Your task to perform on an android device: Open Android settings Image 0: 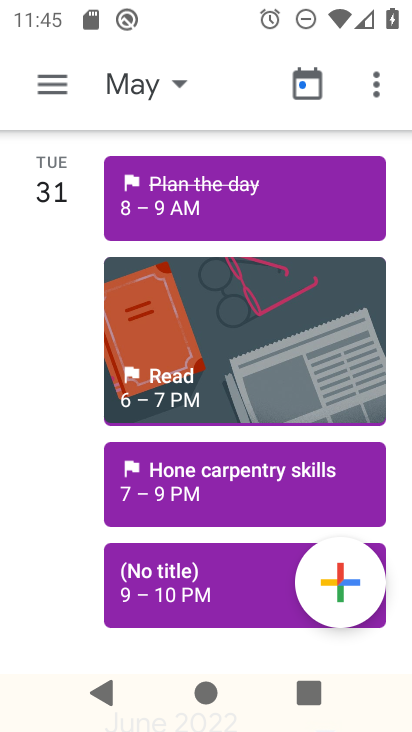
Step 0: press home button
Your task to perform on an android device: Open Android settings Image 1: 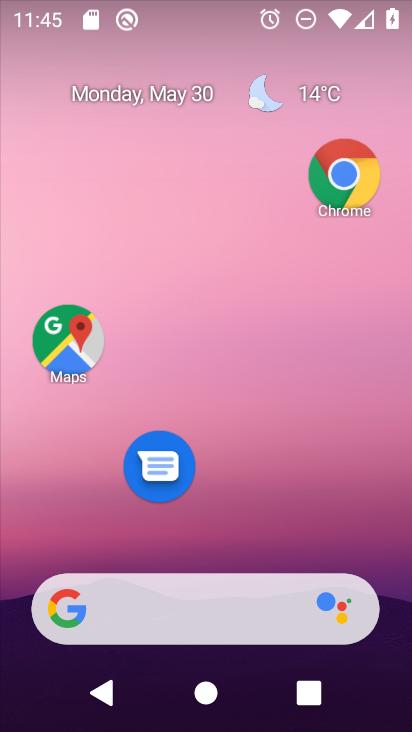
Step 1: drag from (282, 509) to (276, 158)
Your task to perform on an android device: Open Android settings Image 2: 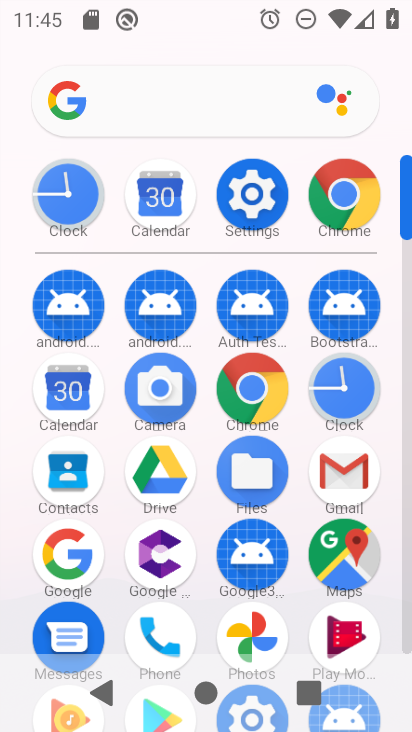
Step 2: click (257, 208)
Your task to perform on an android device: Open Android settings Image 3: 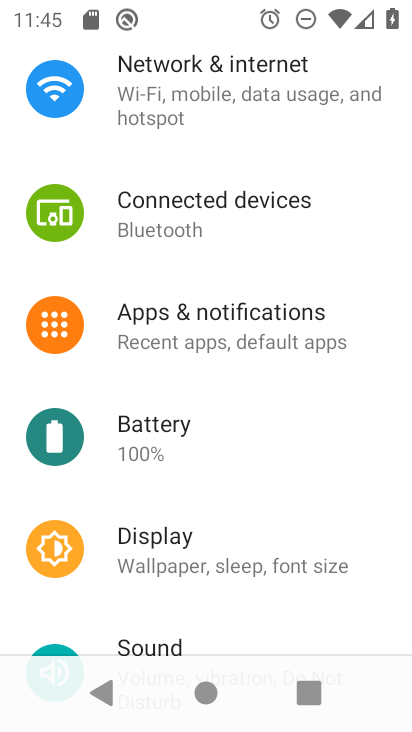
Step 3: task complete